Your task to perform on an android device: manage bookmarks in the chrome app Image 0: 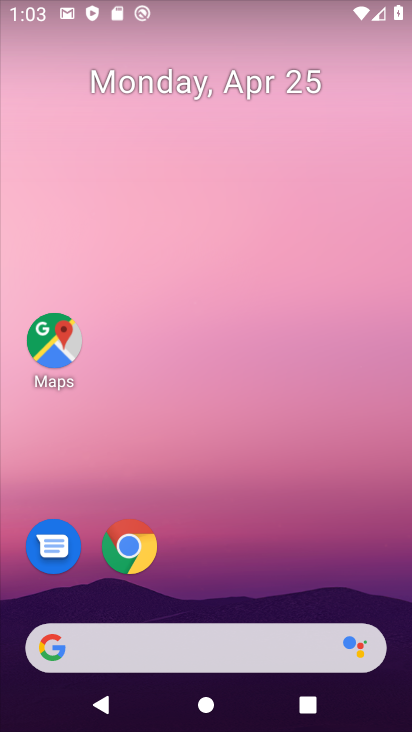
Step 0: drag from (344, 554) to (361, 47)
Your task to perform on an android device: manage bookmarks in the chrome app Image 1: 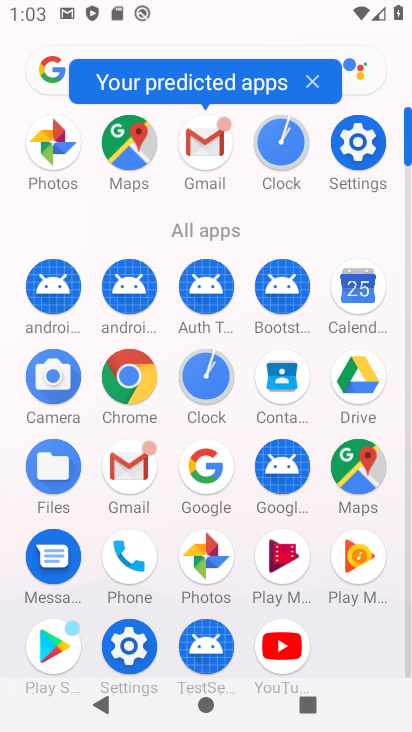
Step 1: click (143, 382)
Your task to perform on an android device: manage bookmarks in the chrome app Image 2: 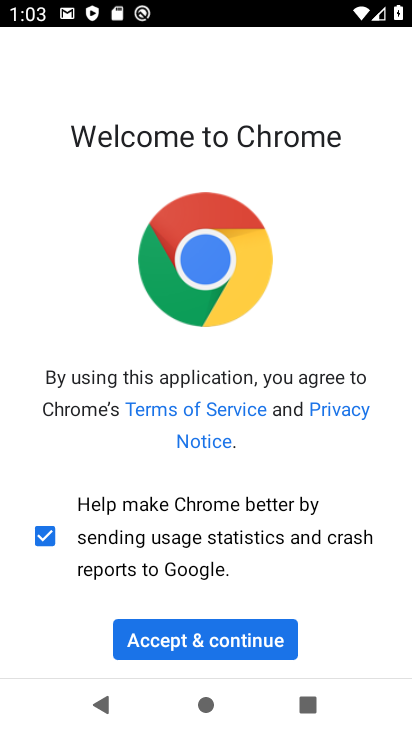
Step 2: click (220, 641)
Your task to perform on an android device: manage bookmarks in the chrome app Image 3: 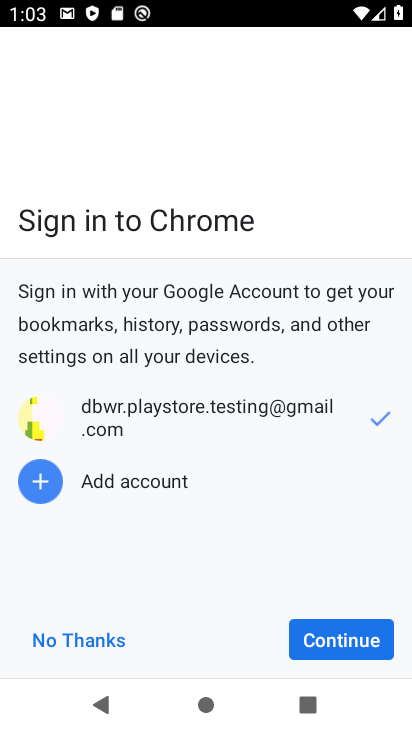
Step 3: click (312, 642)
Your task to perform on an android device: manage bookmarks in the chrome app Image 4: 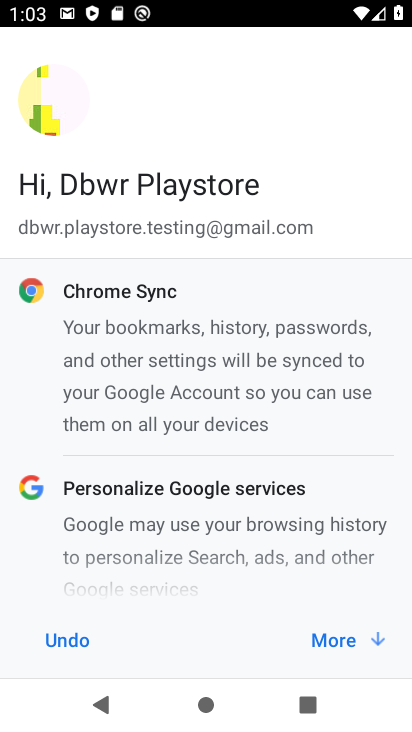
Step 4: click (330, 641)
Your task to perform on an android device: manage bookmarks in the chrome app Image 5: 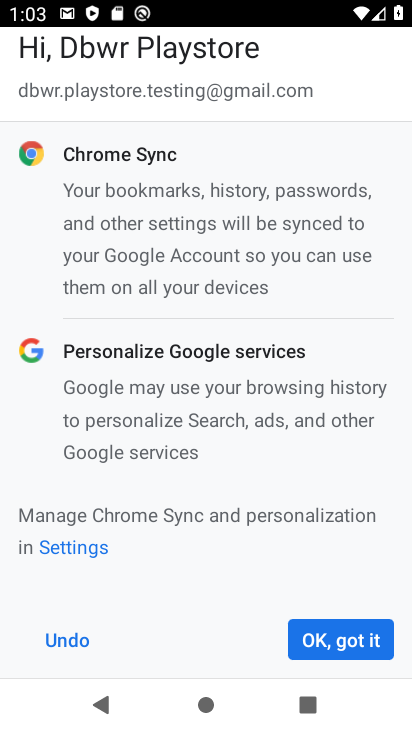
Step 5: click (330, 641)
Your task to perform on an android device: manage bookmarks in the chrome app Image 6: 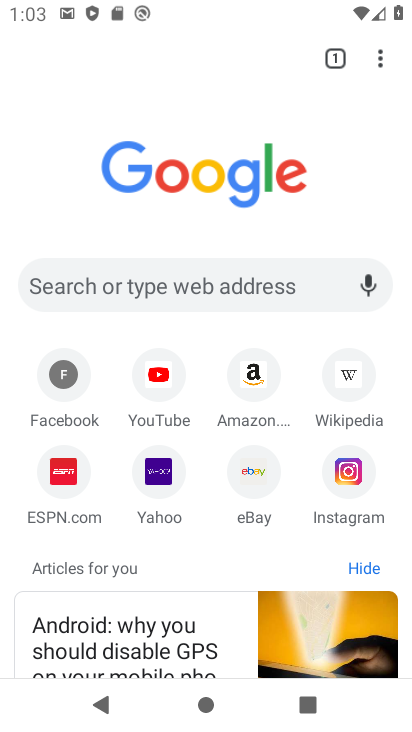
Step 6: click (384, 59)
Your task to perform on an android device: manage bookmarks in the chrome app Image 7: 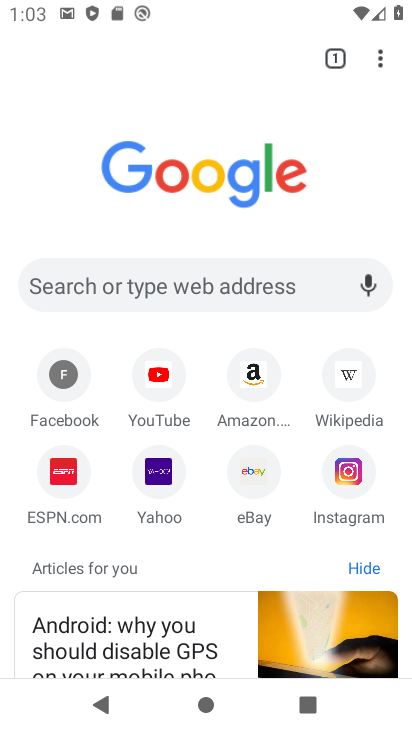
Step 7: click (381, 62)
Your task to perform on an android device: manage bookmarks in the chrome app Image 8: 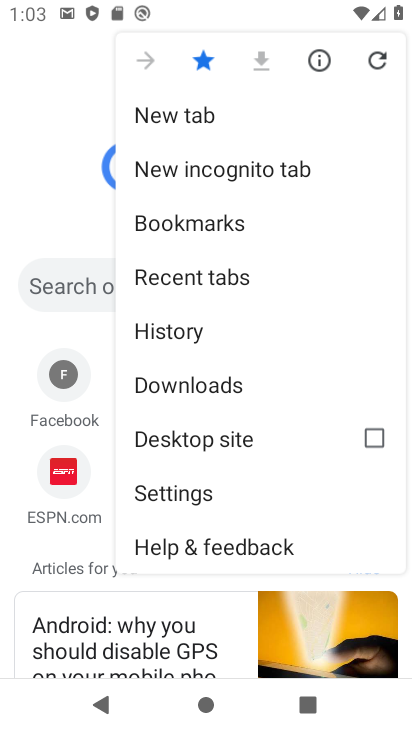
Step 8: click (233, 227)
Your task to perform on an android device: manage bookmarks in the chrome app Image 9: 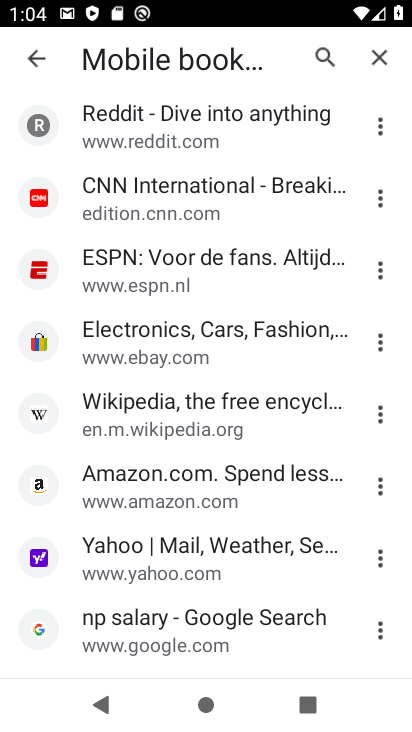
Step 9: click (384, 126)
Your task to perform on an android device: manage bookmarks in the chrome app Image 10: 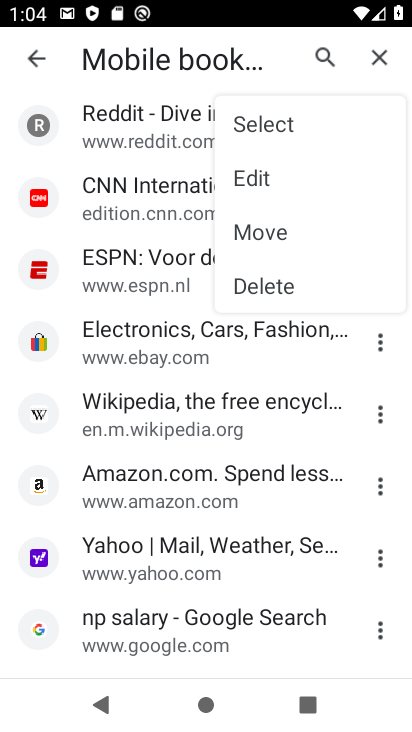
Step 10: click (301, 178)
Your task to perform on an android device: manage bookmarks in the chrome app Image 11: 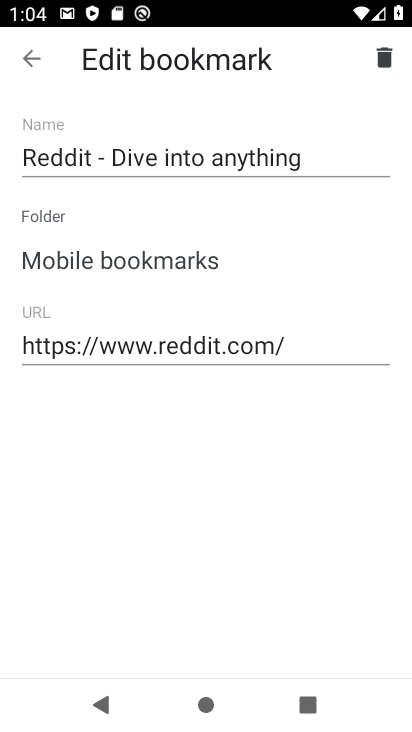
Step 11: click (319, 162)
Your task to perform on an android device: manage bookmarks in the chrome app Image 12: 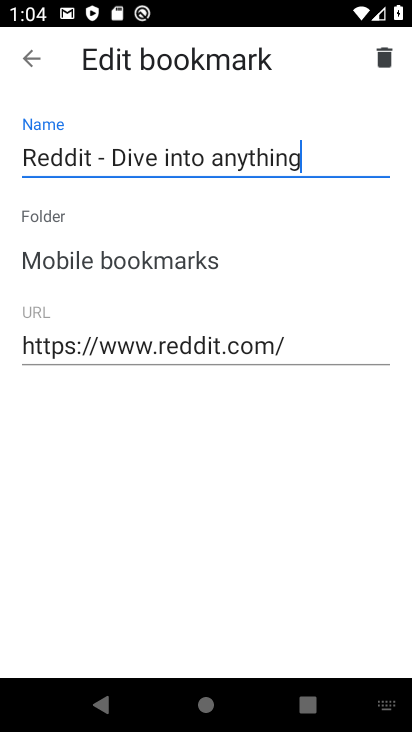
Step 12: type "g"
Your task to perform on an android device: manage bookmarks in the chrome app Image 13: 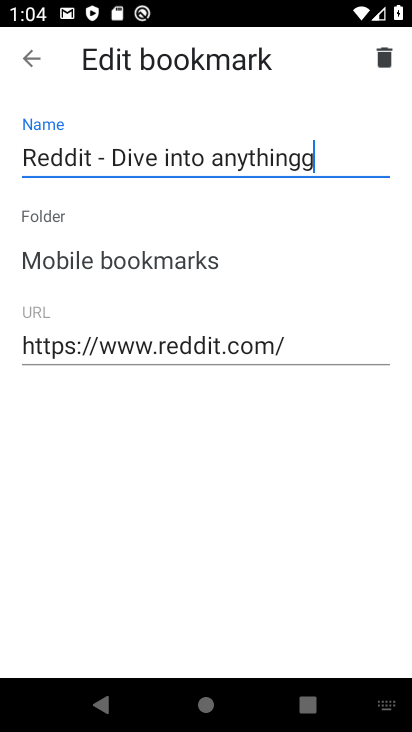
Step 13: click (33, 51)
Your task to perform on an android device: manage bookmarks in the chrome app Image 14: 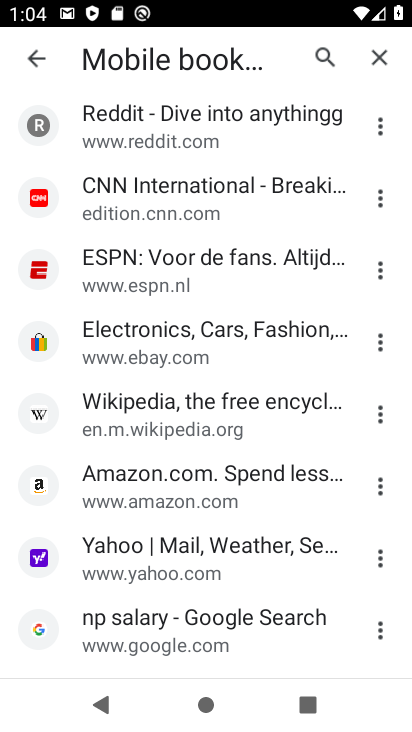
Step 14: task complete